Your task to perform on an android device: When is my next appointment? Image 0: 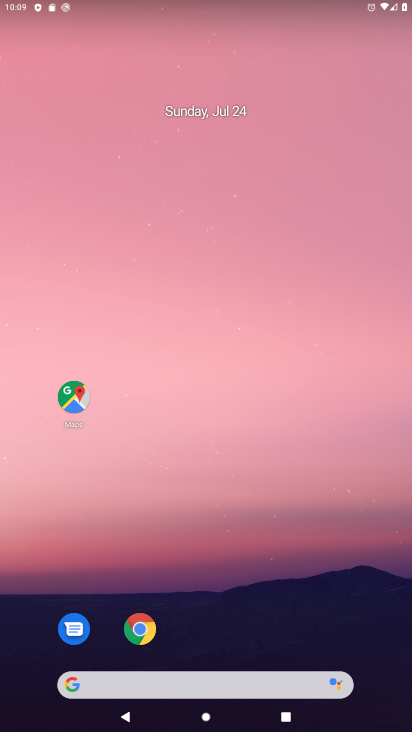
Step 0: drag from (186, 686) to (272, 139)
Your task to perform on an android device: When is my next appointment? Image 1: 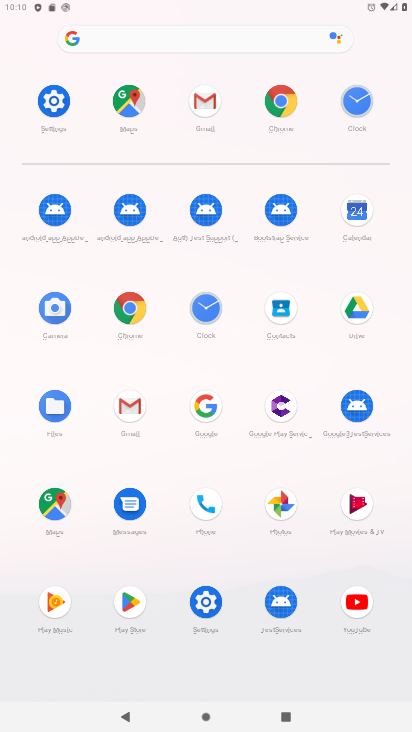
Step 1: click (358, 210)
Your task to perform on an android device: When is my next appointment? Image 2: 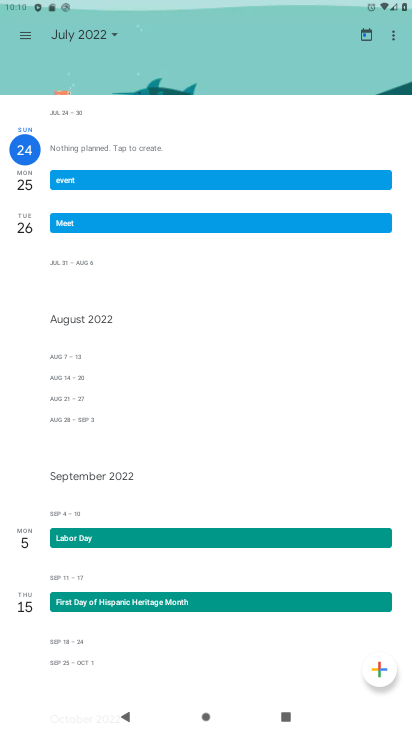
Step 2: click (368, 35)
Your task to perform on an android device: When is my next appointment? Image 3: 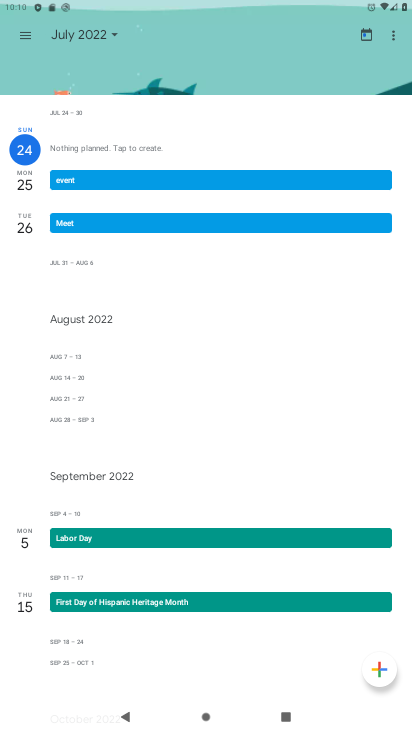
Step 3: click (114, 37)
Your task to perform on an android device: When is my next appointment? Image 4: 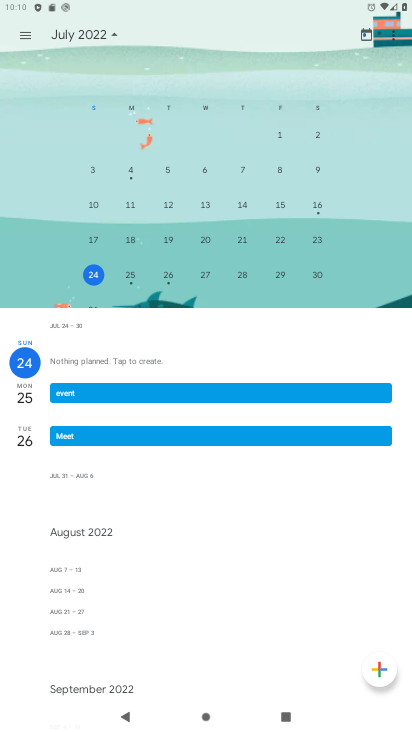
Step 4: click (134, 277)
Your task to perform on an android device: When is my next appointment? Image 5: 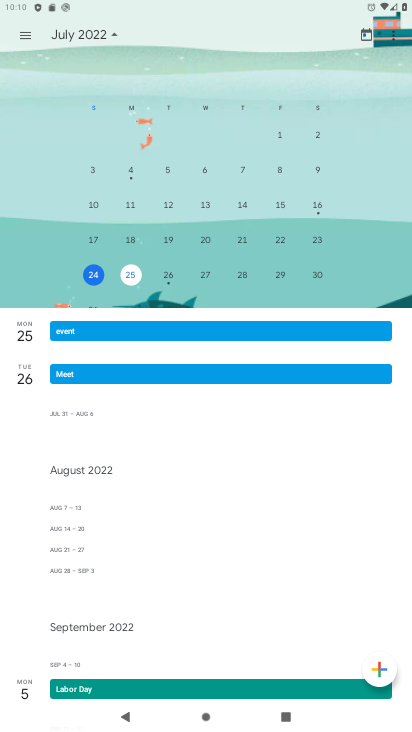
Step 5: task complete